Your task to perform on an android device: Open Google Chrome Image 0: 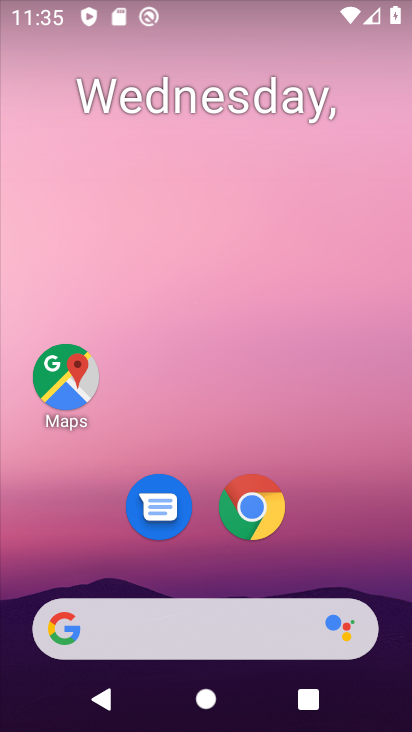
Step 0: click (235, 497)
Your task to perform on an android device: Open Google Chrome Image 1: 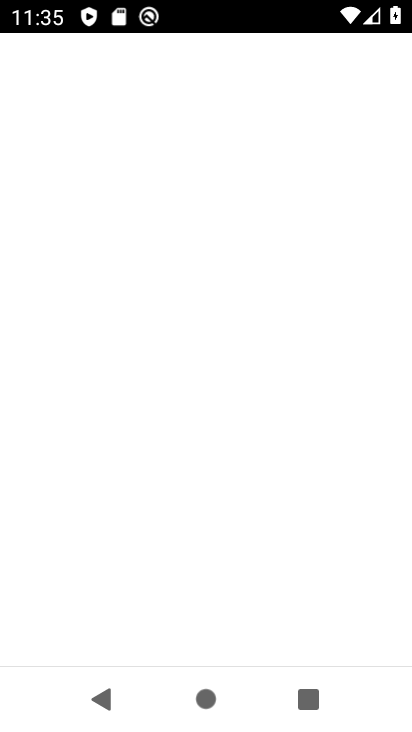
Step 1: task complete